Your task to perform on an android device: Clear the cart on target.com. Add apple airpods to the cart on target.com Image 0: 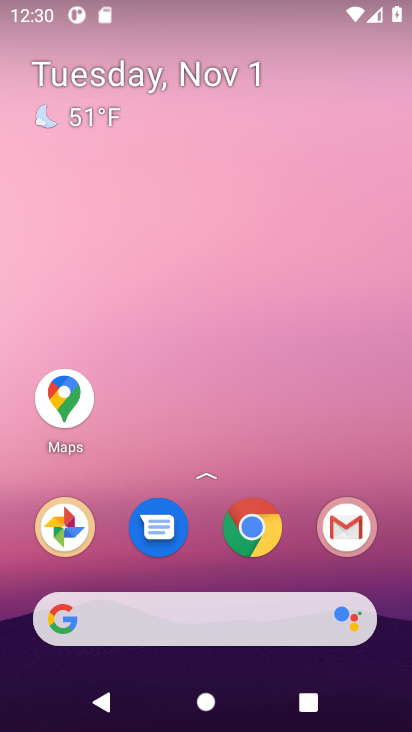
Step 0: click (253, 526)
Your task to perform on an android device: Clear the cart on target.com. Add apple airpods to the cart on target.com Image 1: 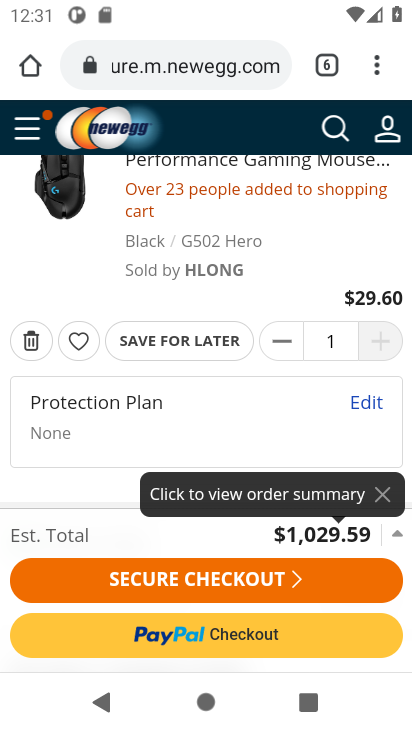
Step 1: click (182, 45)
Your task to perform on an android device: Clear the cart on target.com. Add apple airpods to the cart on target.com Image 2: 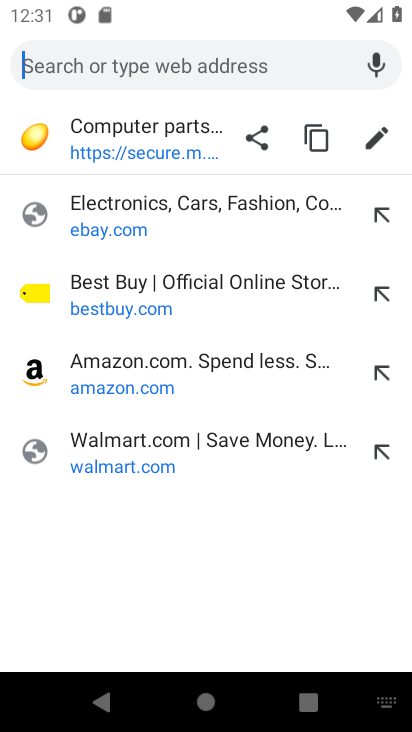
Step 2: type "target.com"
Your task to perform on an android device: Clear the cart on target.com. Add apple airpods to the cart on target.com Image 3: 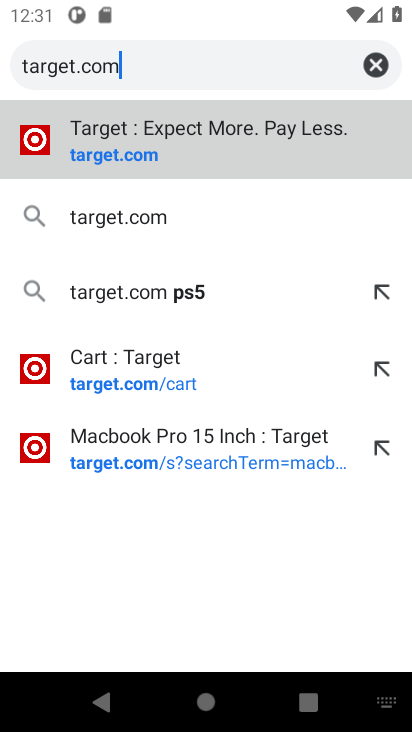
Step 3: click (118, 150)
Your task to perform on an android device: Clear the cart on target.com. Add apple airpods to the cart on target.com Image 4: 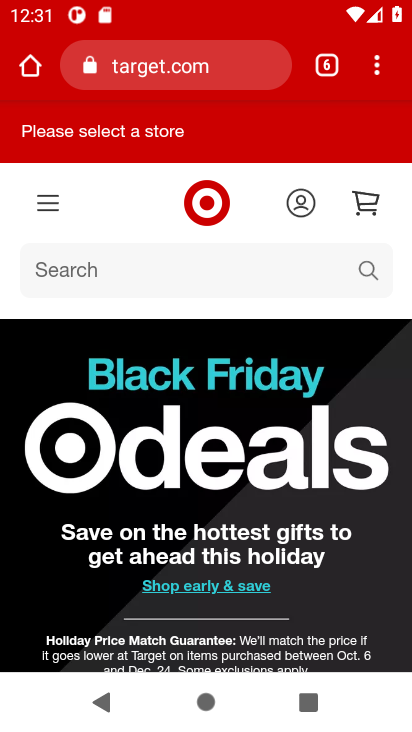
Step 4: click (366, 202)
Your task to perform on an android device: Clear the cart on target.com. Add apple airpods to the cart on target.com Image 5: 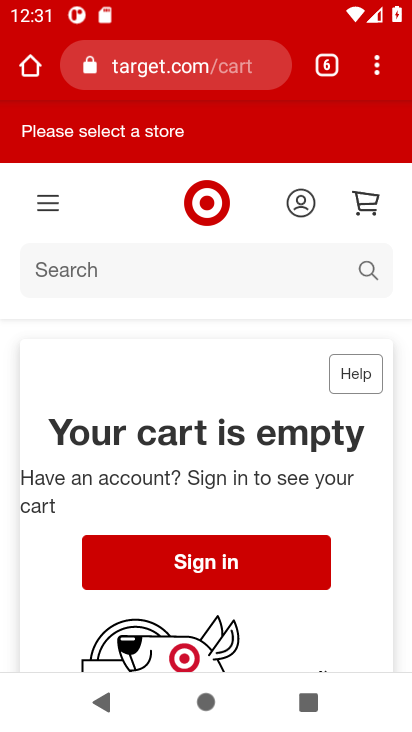
Step 5: click (45, 263)
Your task to perform on an android device: Clear the cart on target.com. Add apple airpods to the cart on target.com Image 6: 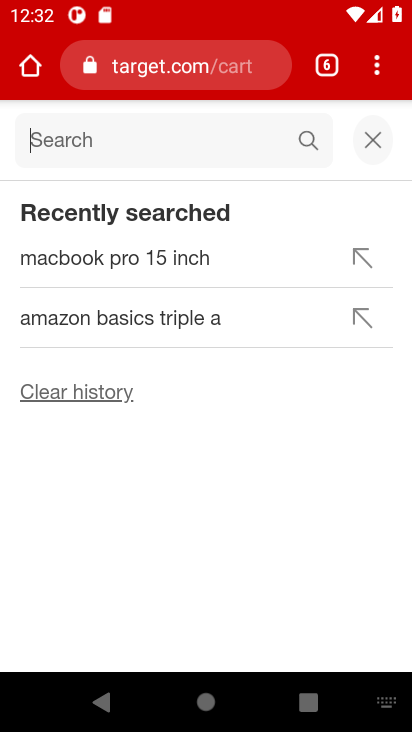
Step 6: type "apple airpods"
Your task to perform on an android device: Clear the cart on target.com. Add apple airpods to the cart on target.com Image 7: 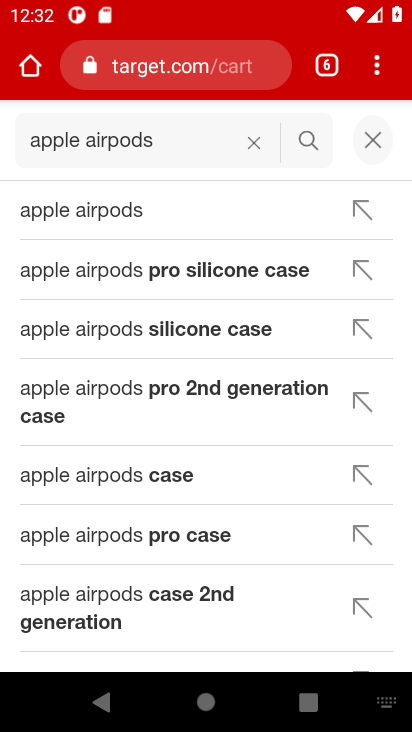
Step 7: click (43, 216)
Your task to perform on an android device: Clear the cart on target.com. Add apple airpods to the cart on target.com Image 8: 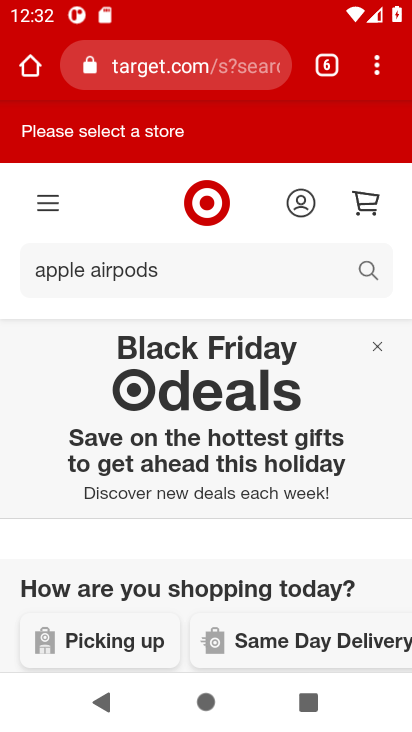
Step 8: drag from (226, 536) to (222, 280)
Your task to perform on an android device: Clear the cart on target.com. Add apple airpods to the cart on target.com Image 9: 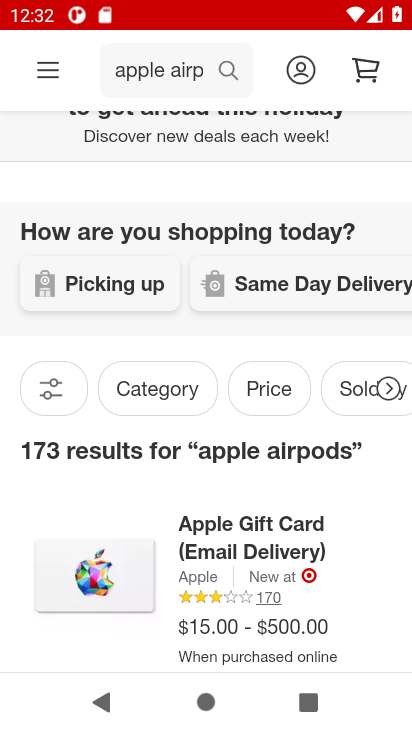
Step 9: drag from (221, 522) to (218, 249)
Your task to perform on an android device: Clear the cart on target.com. Add apple airpods to the cart on target.com Image 10: 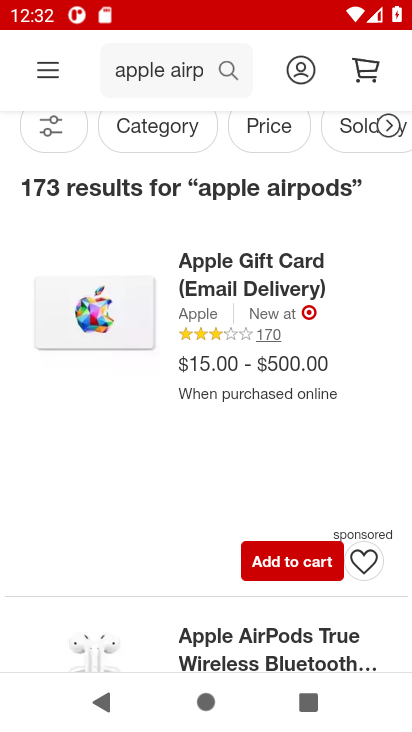
Step 10: drag from (177, 531) to (152, 248)
Your task to perform on an android device: Clear the cart on target.com. Add apple airpods to the cart on target.com Image 11: 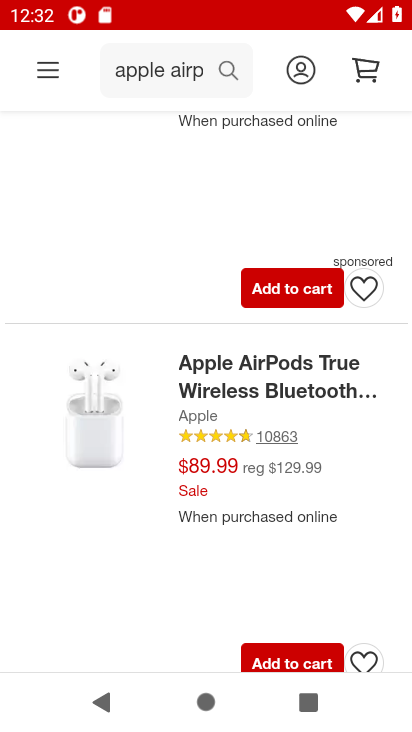
Step 11: click (240, 375)
Your task to perform on an android device: Clear the cart on target.com. Add apple airpods to the cart on target.com Image 12: 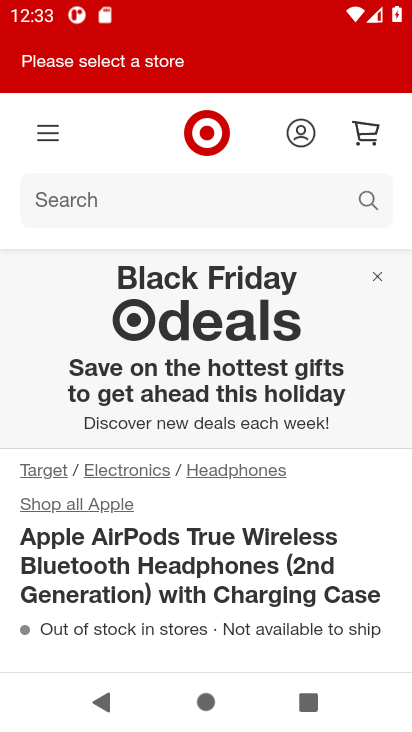
Step 12: drag from (236, 528) to (215, 249)
Your task to perform on an android device: Clear the cart on target.com. Add apple airpods to the cart on target.com Image 13: 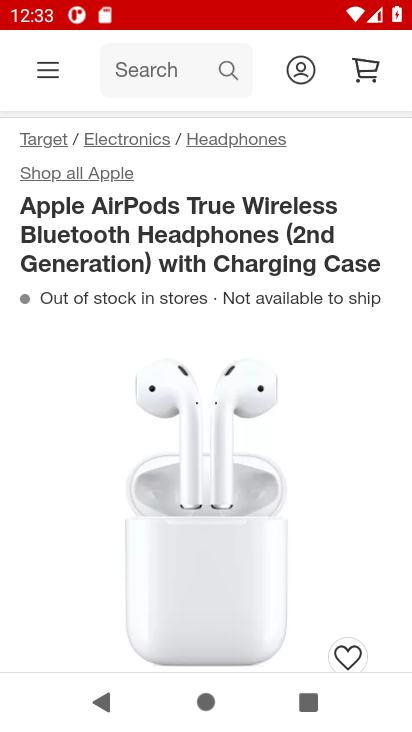
Step 13: drag from (202, 516) to (195, 277)
Your task to perform on an android device: Clear the cart on target.com. Add apple airpods to the cart on target.com Image 14: 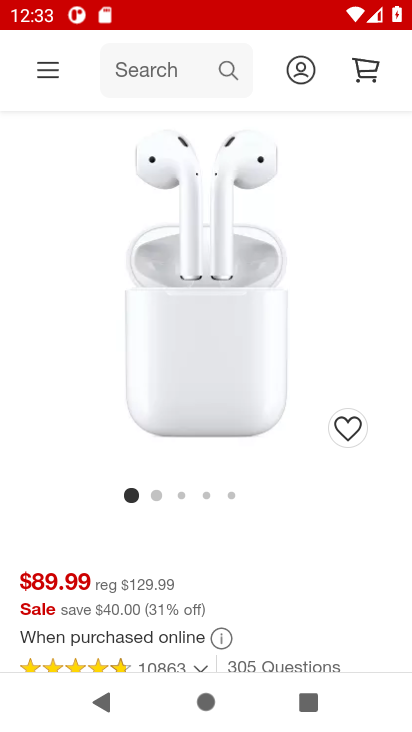
Step 14: drag from (194, 576) to (211, 184)
Your task to perform on an android device: Clear the cart on target.com. Add apple airpods to the cart on target.com Image 15: 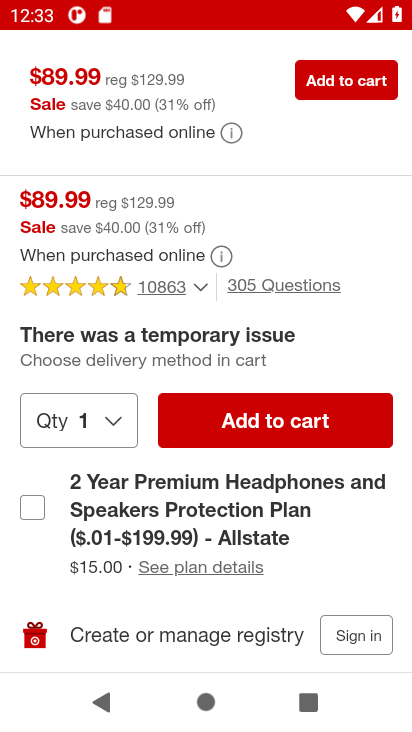
Step 15: click (263, 416)
Your task to perform on an android device: Clear the cart on target.com. Add apple airpods to the cart on target.com Image 16: 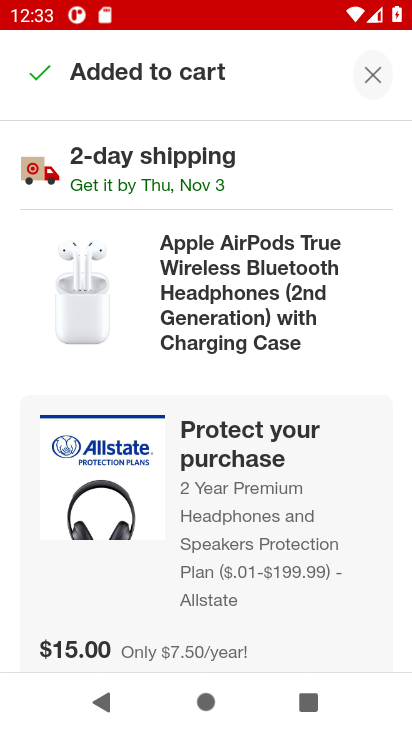
Step 16: task complete